Your task to perform on an android device: change the clock display to analog Image 0: 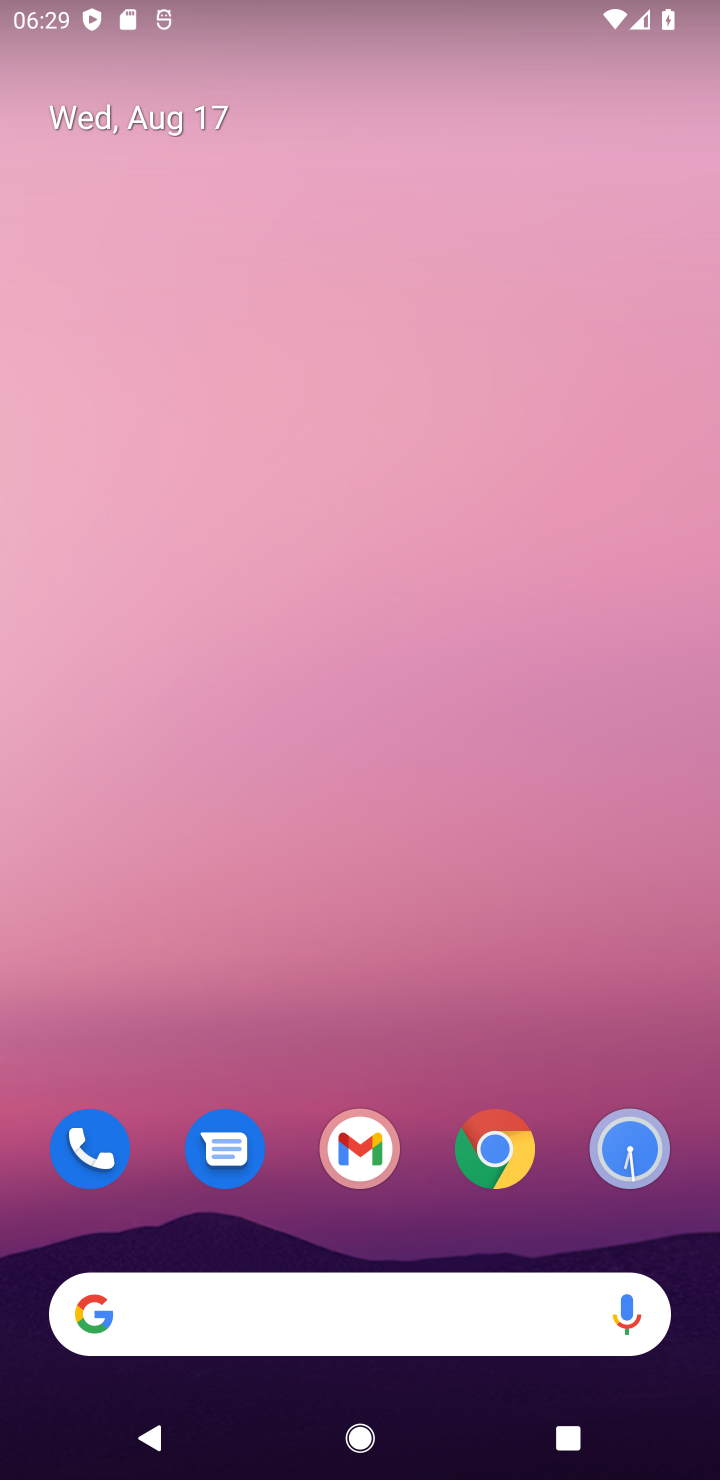
Step 0: click (619, 1138)
Your task to perform on an android device: change the clock display to analog Image 1: 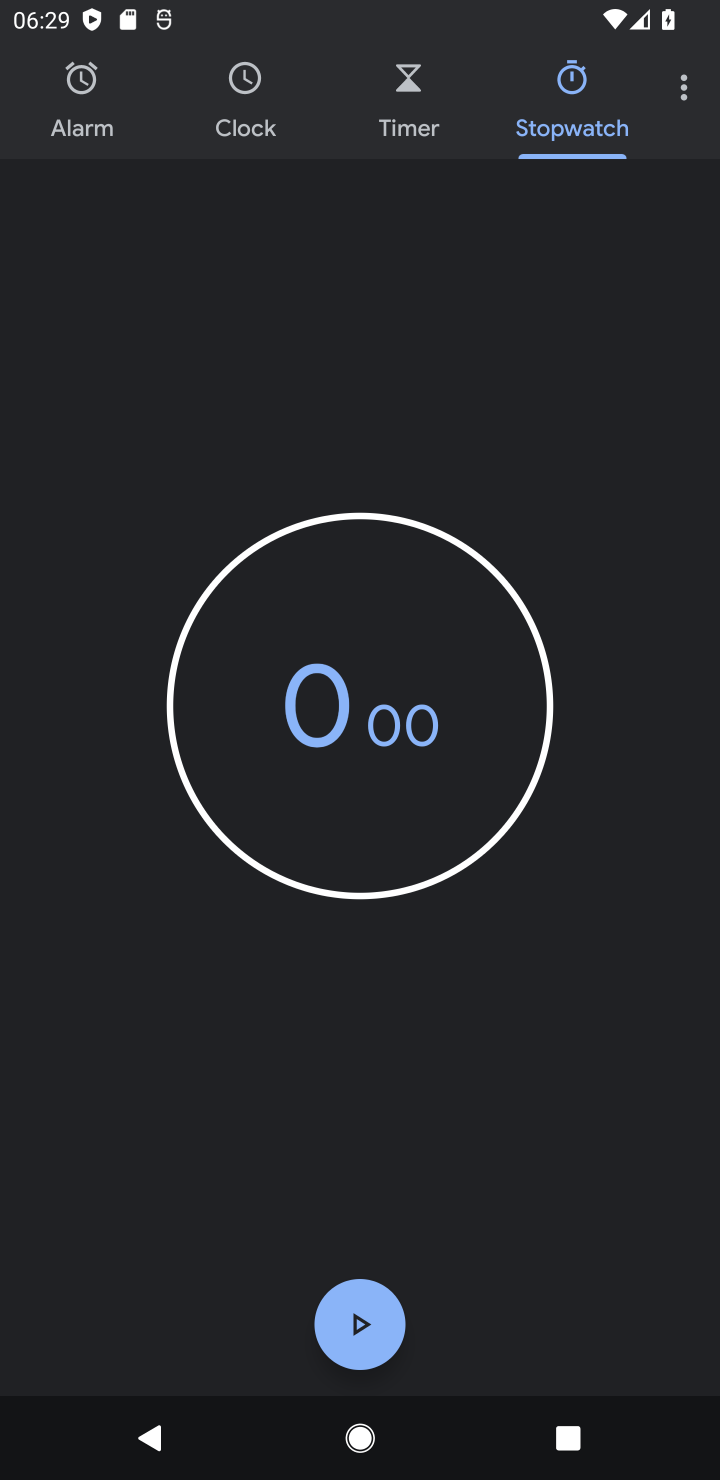
Step 1: click (680, 83)
Your task to perform on an android device: change the clock display to analog Image 2: 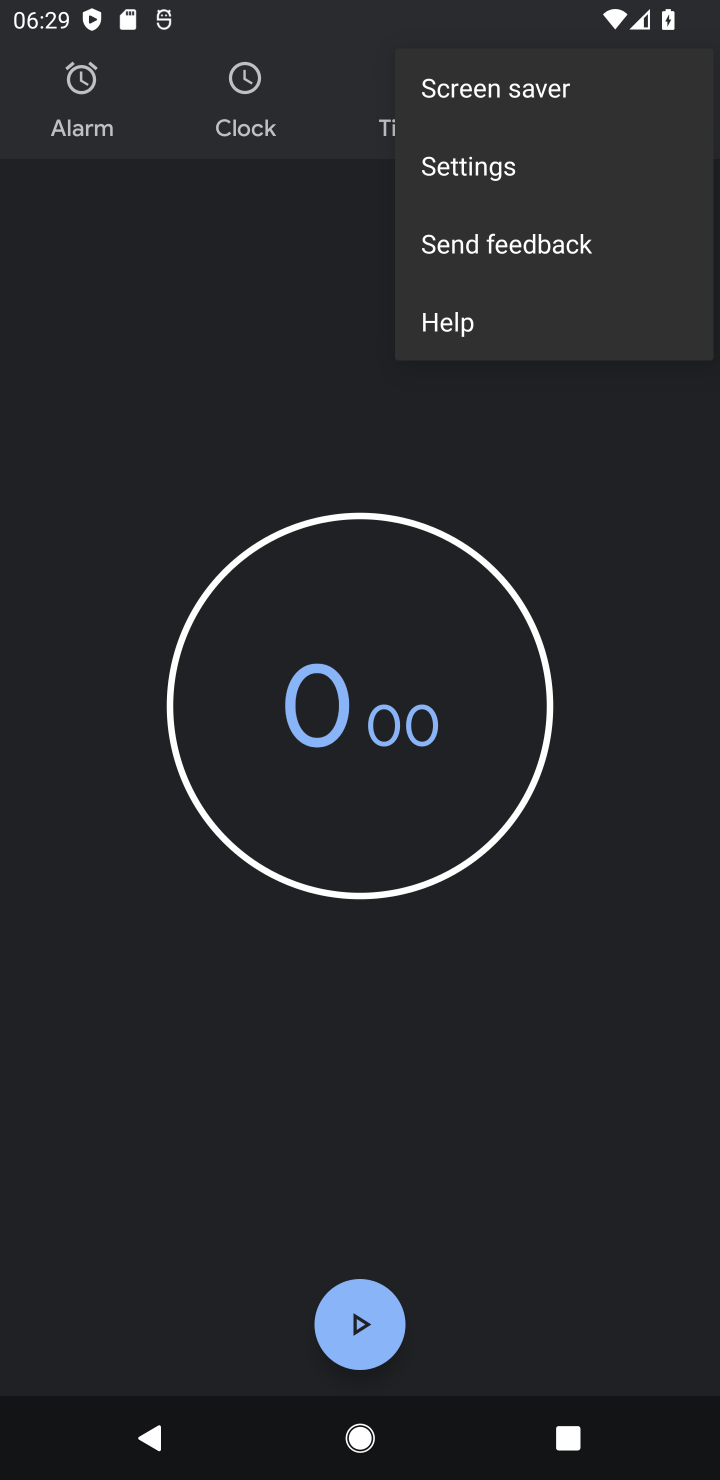
Step 2: click (491, 158)
Your task to perform on an android device: change the clock display to analog Image 3: 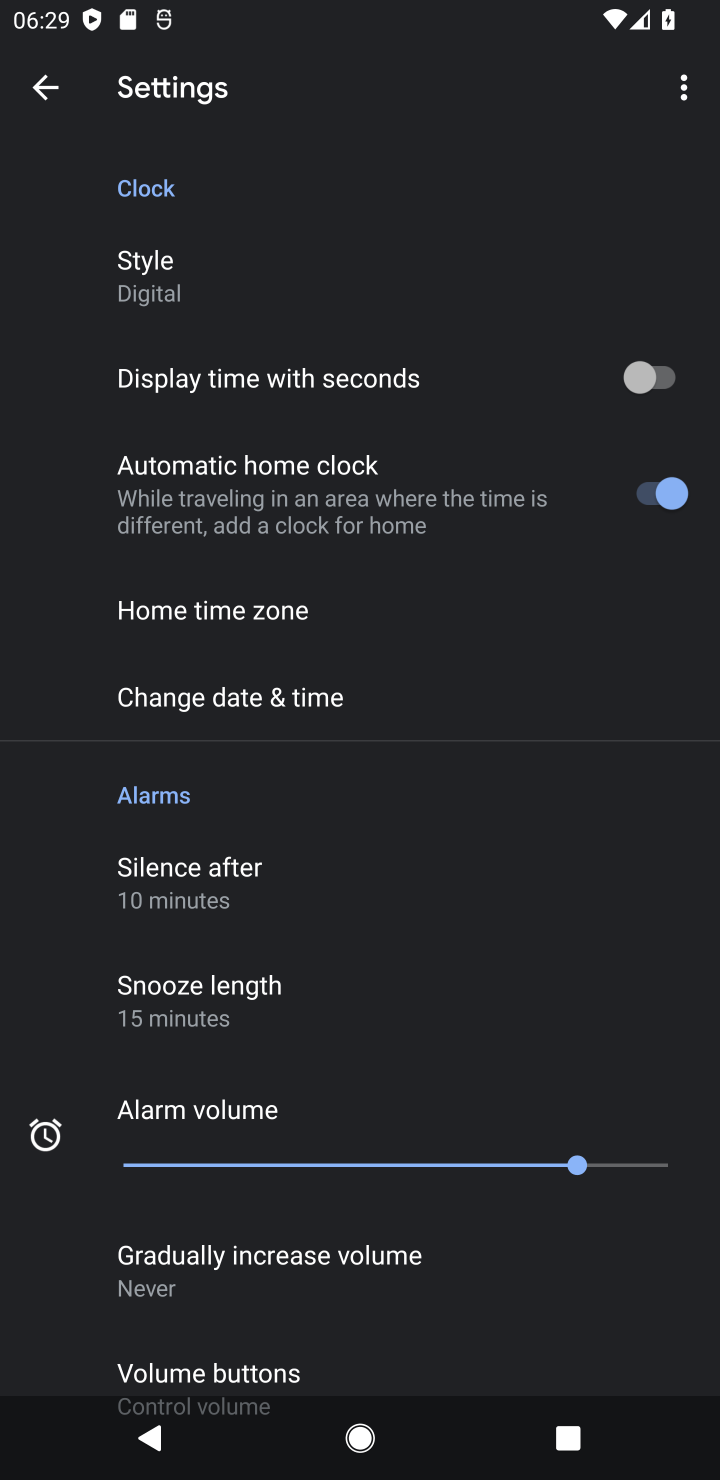
Step 3: click (162, 259)
Your task to perform on an android device: change the clock display to analog Image 4: 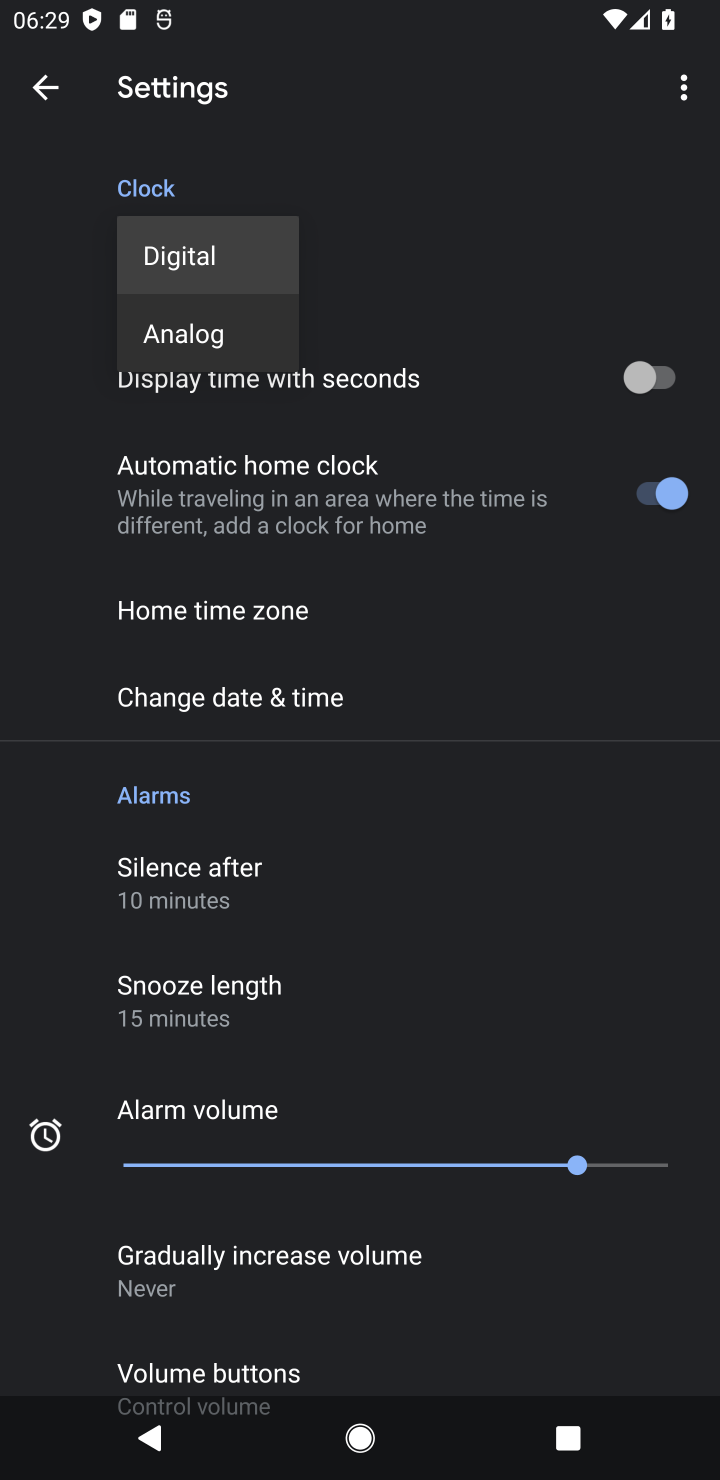
Step 4: click (202, 328)
Your task to perform on an android device: change the clock display to analog Image 5: 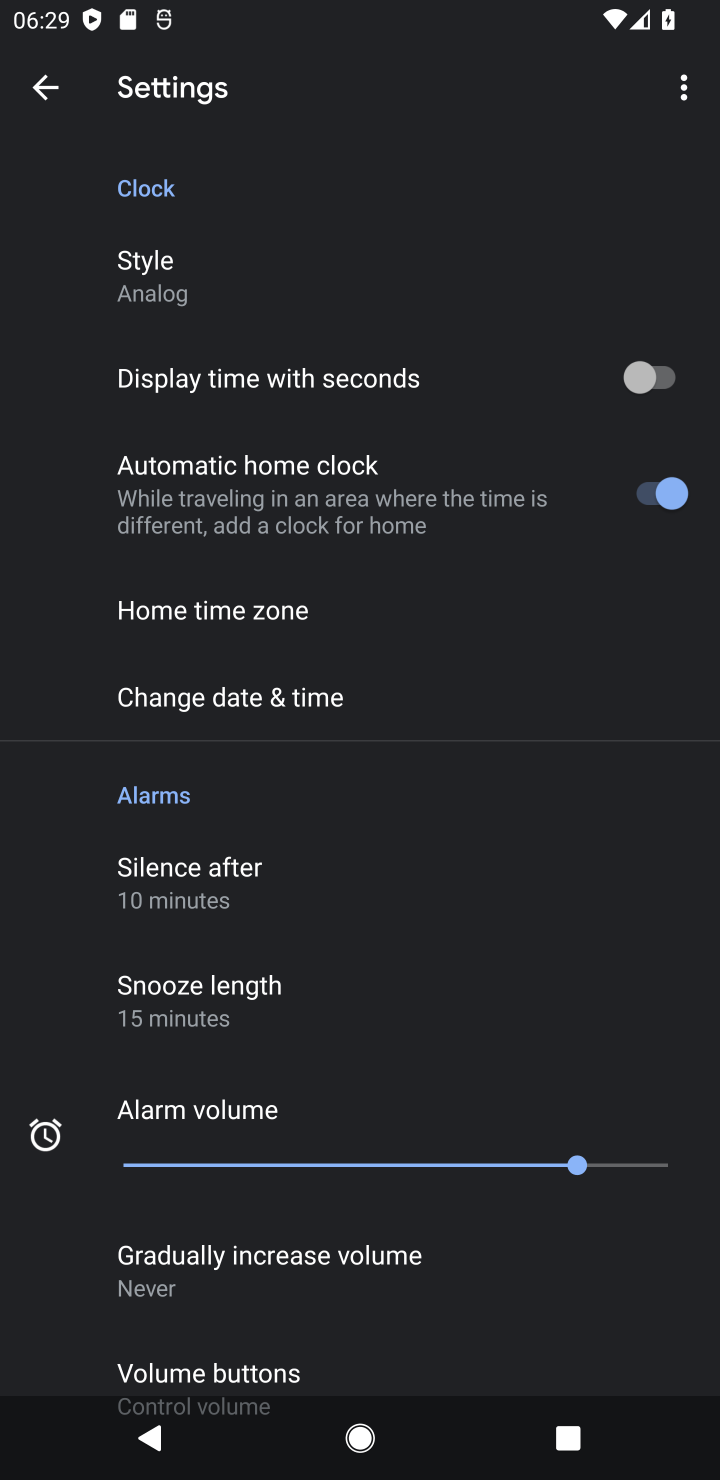
Step 5: task complete